Your task to perform on an android device: find photos in the google photos app Image 0: 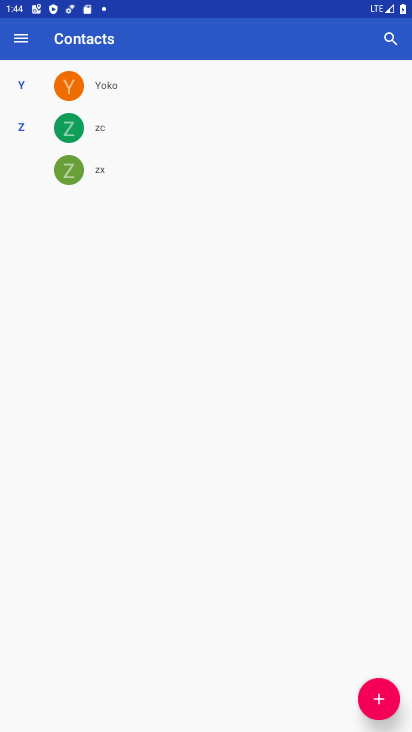
Step 0: press home button
Your task to perform on an android device: find photos in the google photos app Image 1: 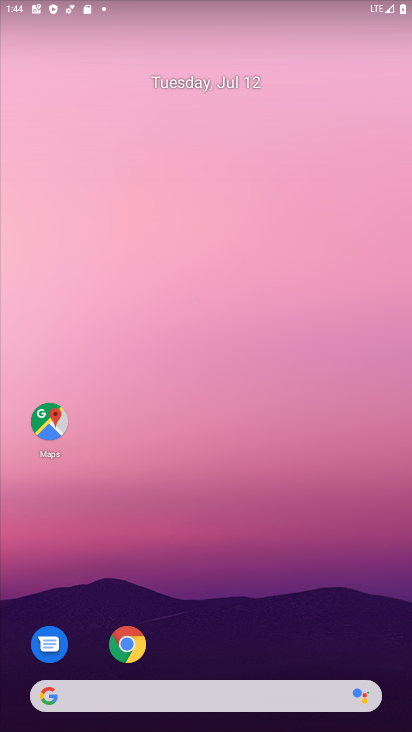
Step 1: drag from (208, 676) to (127, 111)
Your task to perform on an android device: find photos in the google photos app Image 2: 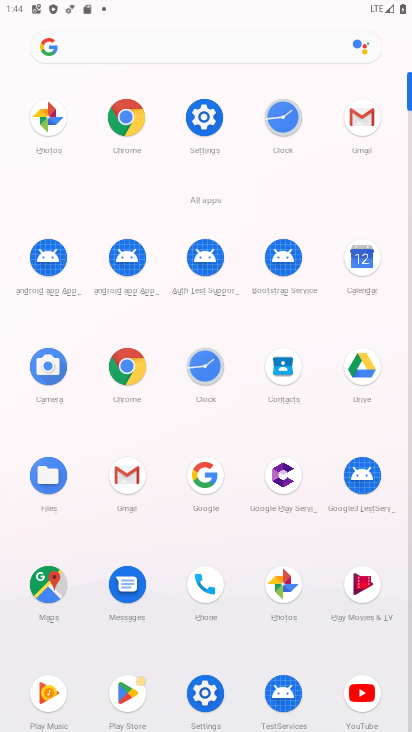
Step 2: click (290, 584)
Your task to perform on an android device: find photos in the google photos app Image 3: 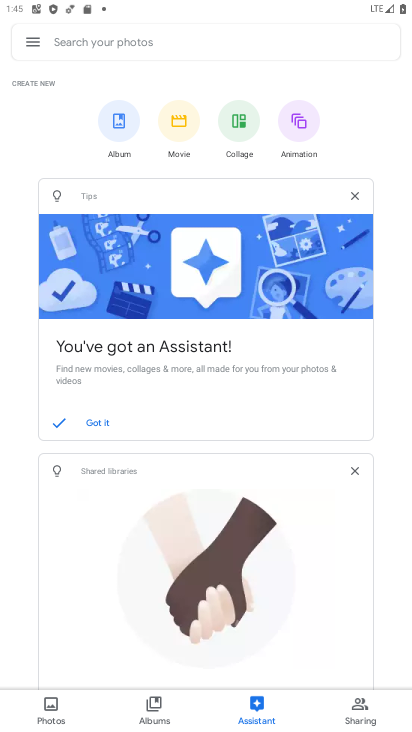
Step 3: click (28, 50)
Your task to perform on an android device: find photos in the google photos app Image 4: 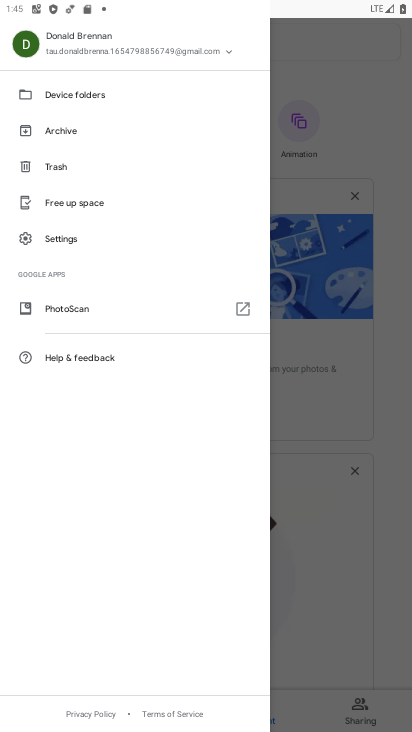
Step 4: click (312, 201)
Your task to perform on an android device: find photos in the google photos app Image 5: 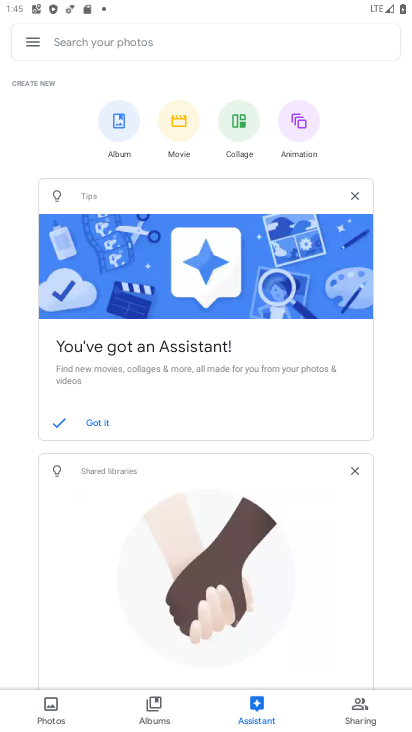
Step 5: click (54, 707)
Your task to perform on an android device: find photos in the google photos app Image 6: 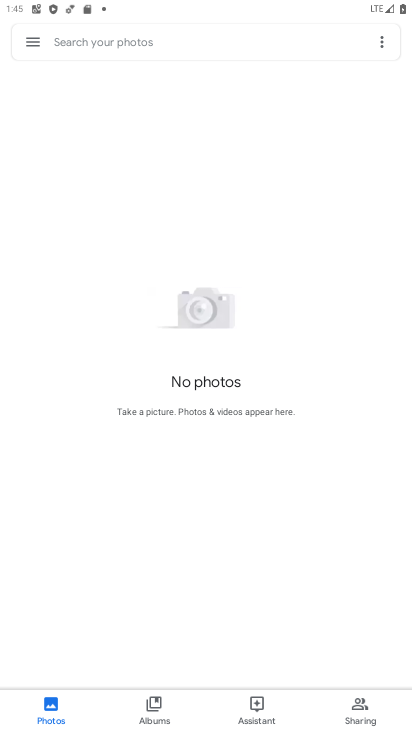
Step 6: task complete